Your task to perform on an android device: open device folders in google photos Image 0: 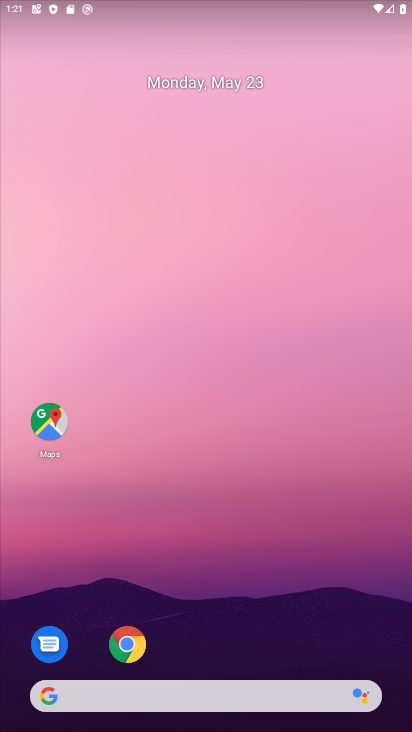
Step 0: drag from (212, 542) to (167, 27)
Your task to perform on an android device: open device folders in google photos Image 1: 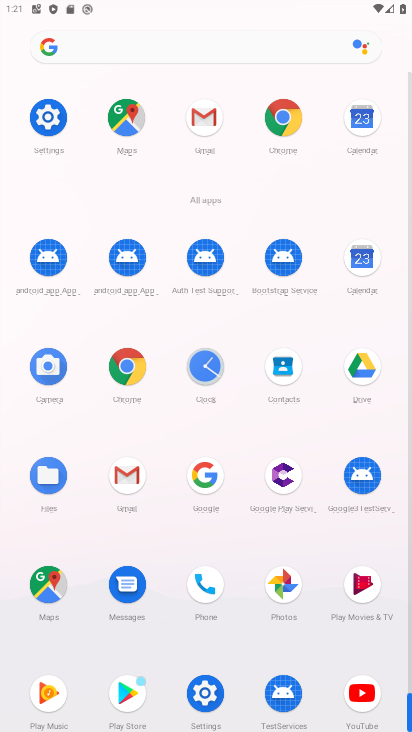
Step 1: drag from (12, 557) to (18, 166)
Your task to perform on an android device: open device folders in google photos Image 2: 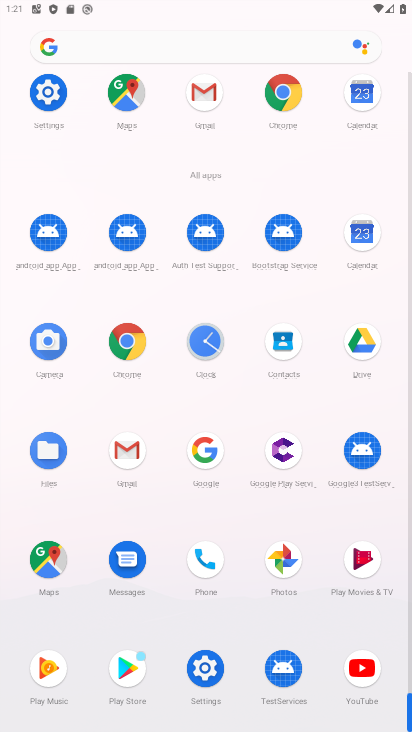
Step 2: click (282, 558)
Your task to perform on an android device: open device folders in google photos Image 3: 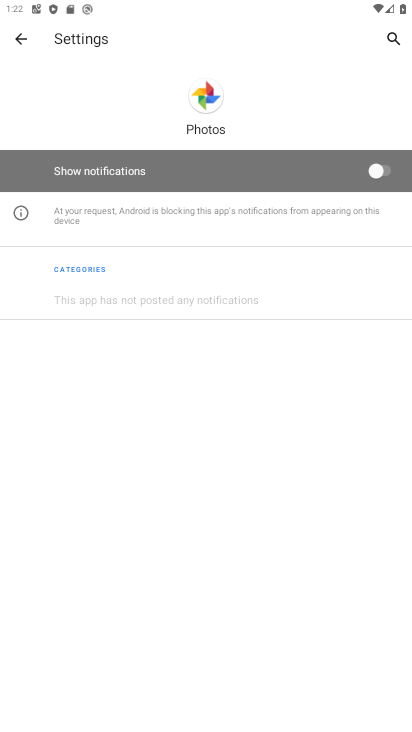
Step 3: click (13, 34)
Your task to perform on an android device: open device folders in google photos Image 4: 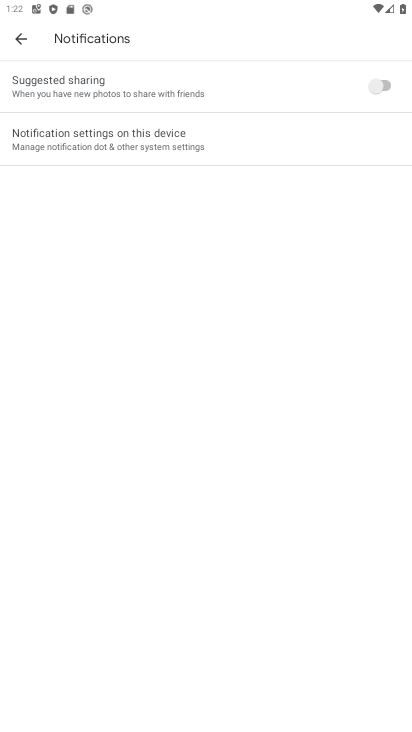
Step 4: click (13, 34)
Your task to perform on an android device: open device folders in google photos Image 5: 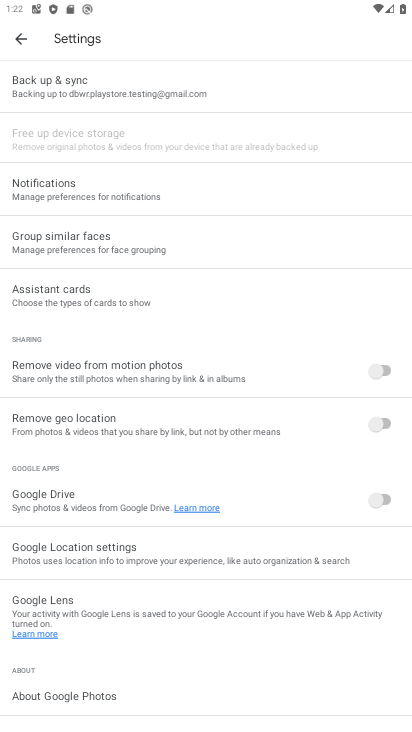
Step 5: click (33, 34)
Your task to perform on an android device: open device folders in google photos Image 6: 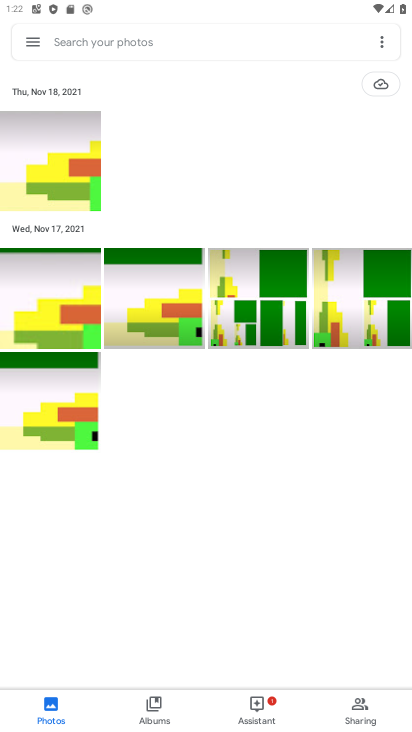
Step 6: click (33, 34)
Your task to perform on an android device: open device folders in google photos Image 7: 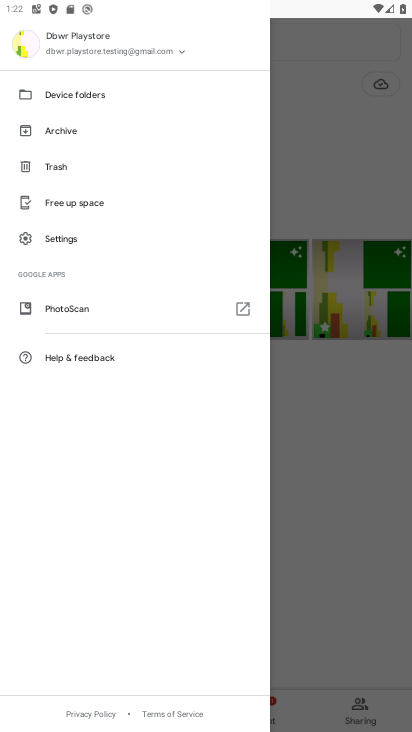
Step 7: click (84, 88)
Your task to perform on an android device: open device folders in google photos Image 8: 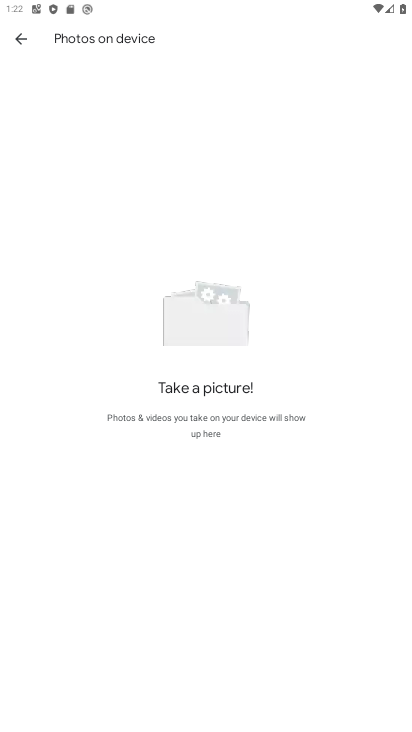
Step 8: task complete